Your task to perform on an android device: uninstall "Google Drive" Image 0: 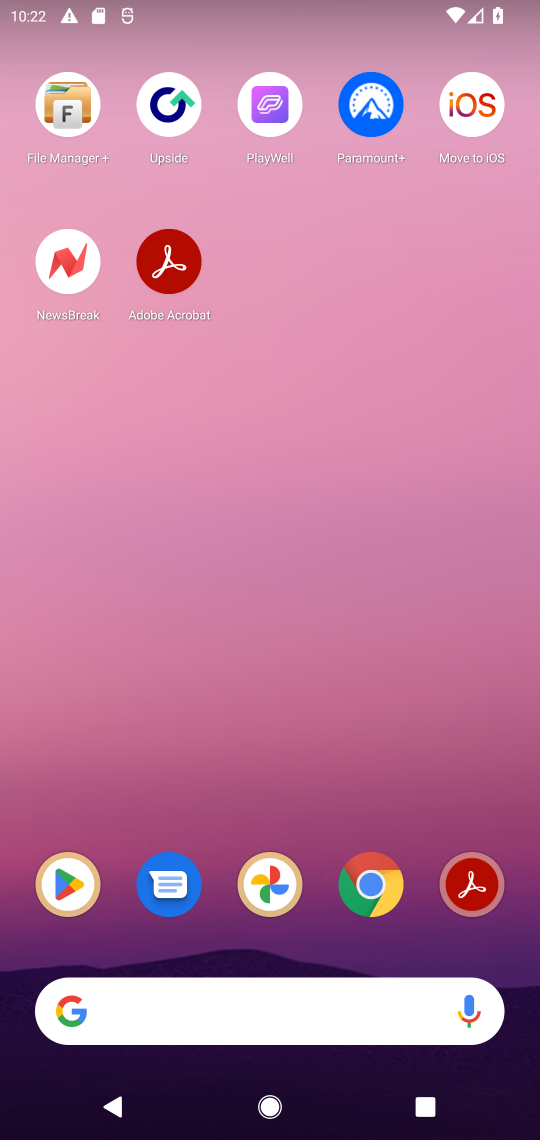
Step 0: click (72, 877)
Your task to perform on an android device: uninstall "Google Drive" Image 1: 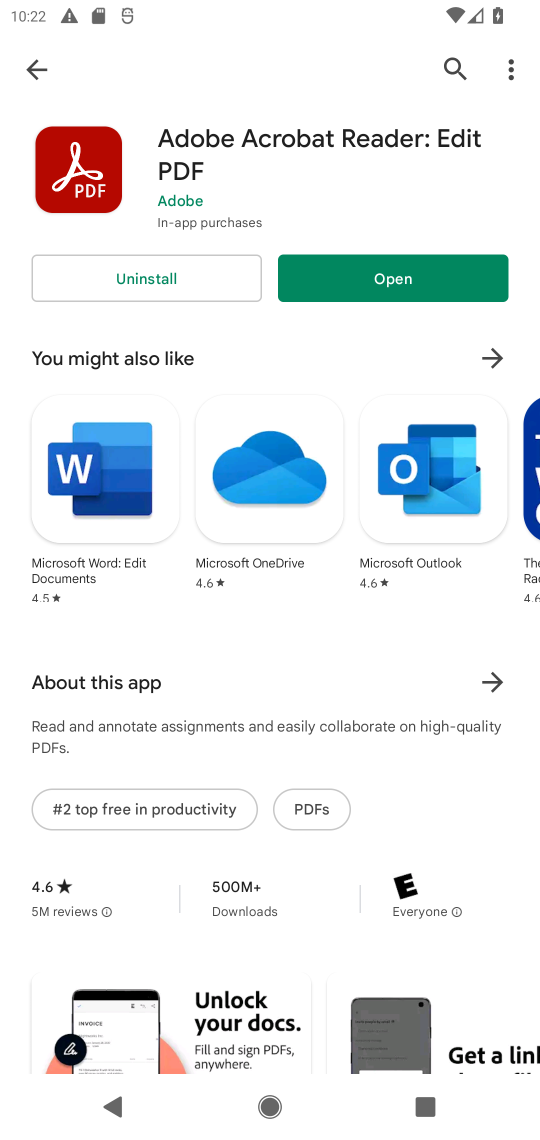
Step 1: click (457, 59)
Your task to perform on an android device: uninstall "Google Drive" Image 2: 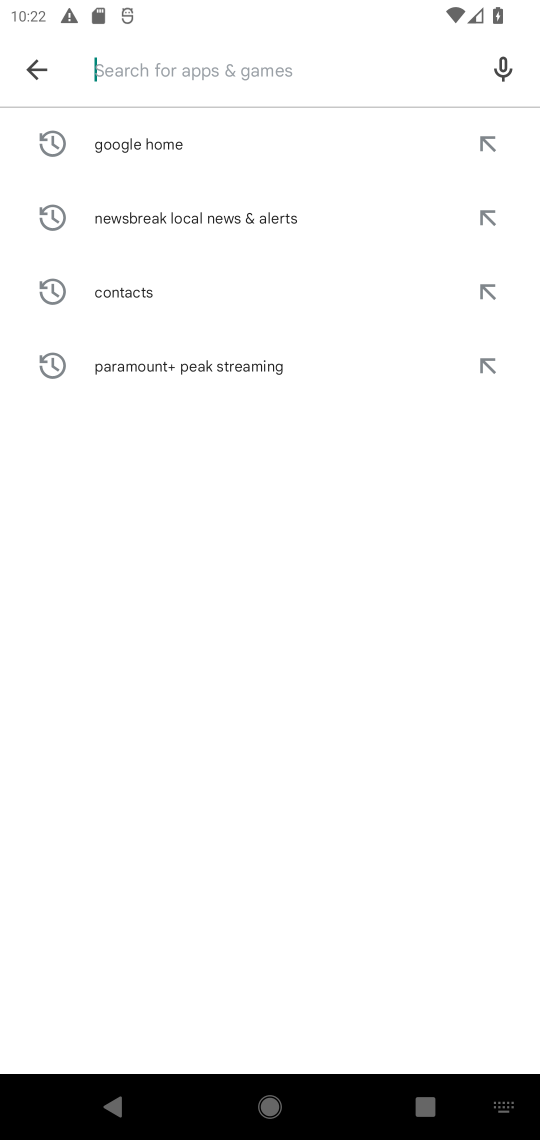
Step 2: type "google drive"
Your task to perform on an android device: uninstall "Google Drive" Image 3: 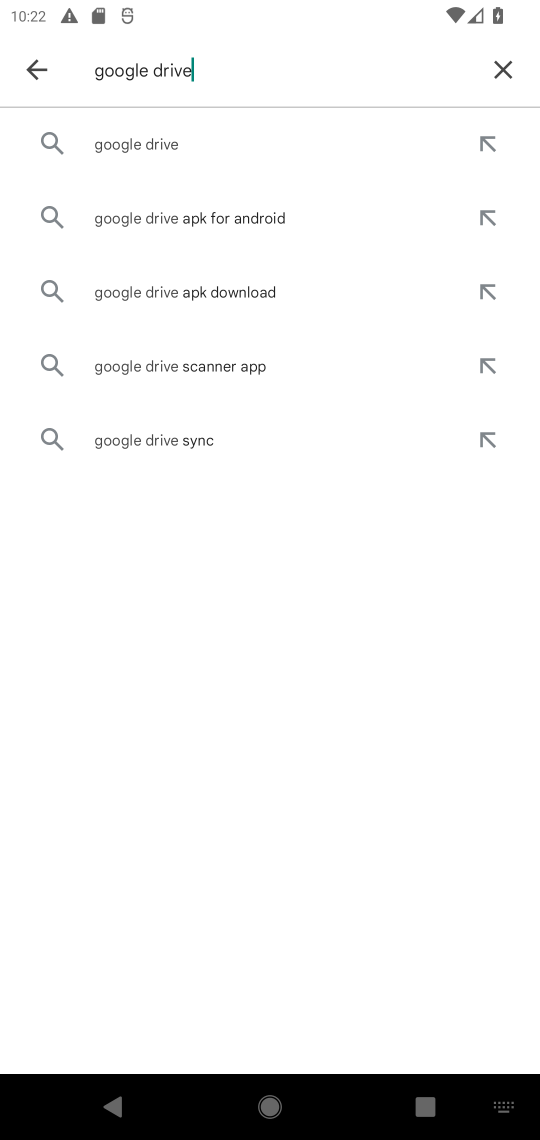
Step 3: click (200, 126)
Your task to perform on an android device: uninstall "Google Drive" Image 4: 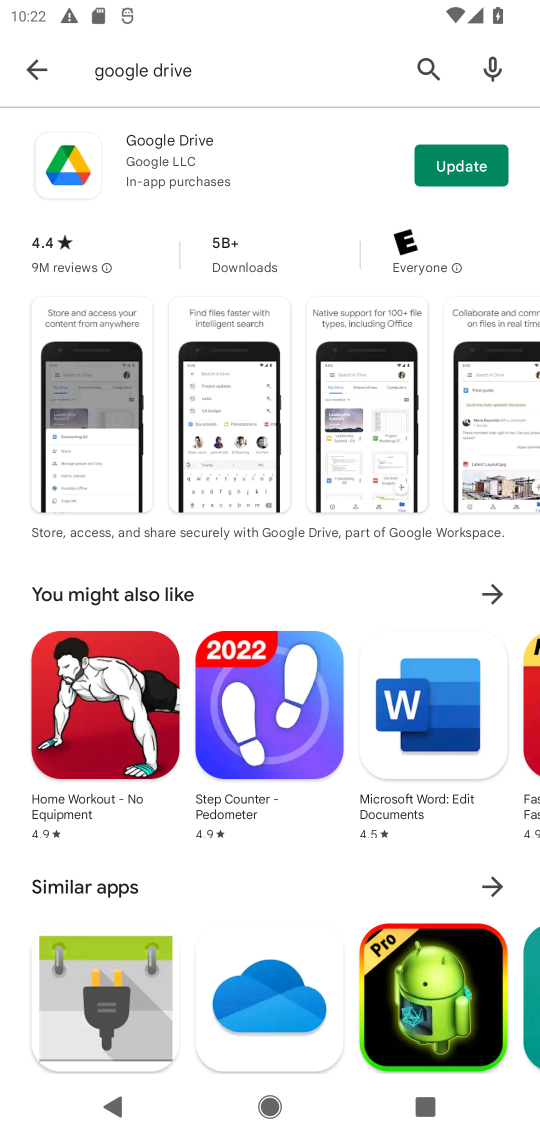
Step 4: click (213, 137)
Your task to perform on an android device: uninstall "Google Drive" Image 5: 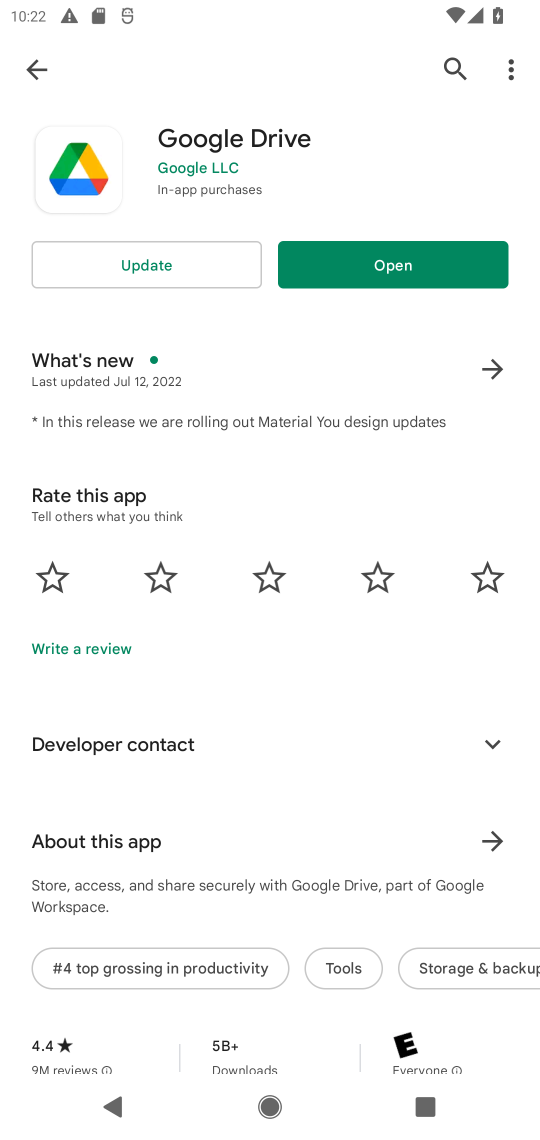
Step 5: task complete